Your task to perform on an android device: Clear the shopping cart on costco.com. Image 0: 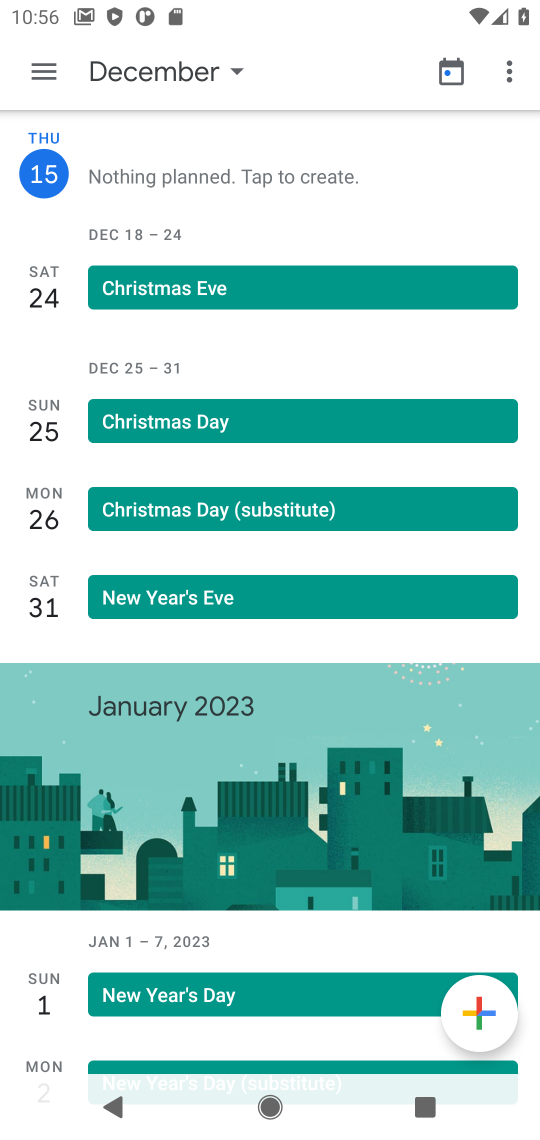
Step 0: press home button
Your task to perform on an android device: Clear the shopping cart on costco.com. Image 1: 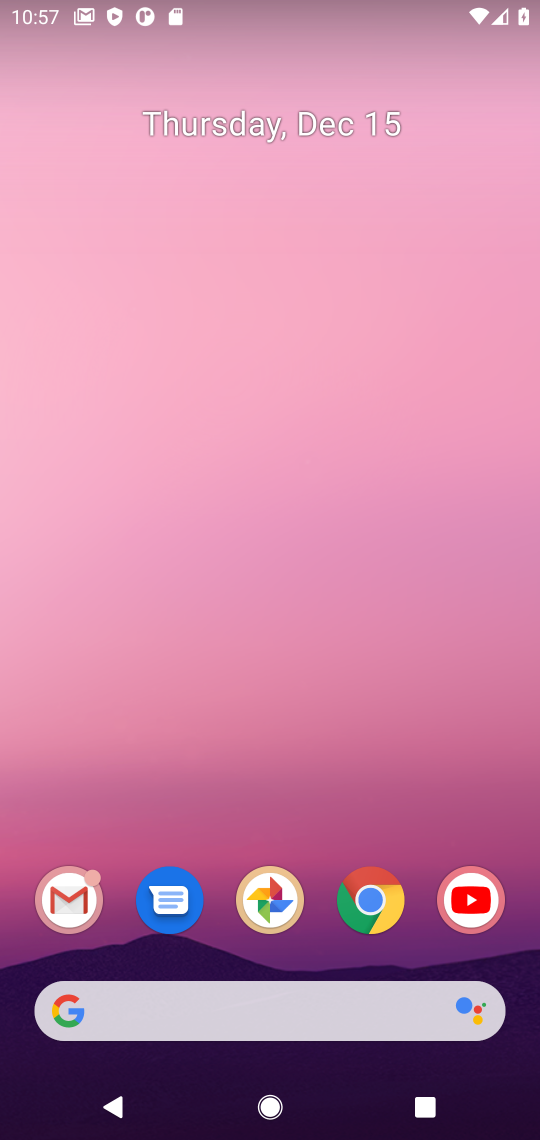
Step 1: click (384, 915)
Your task to perform on an android device: Clear the shopping cart on costco.com. Image 2: 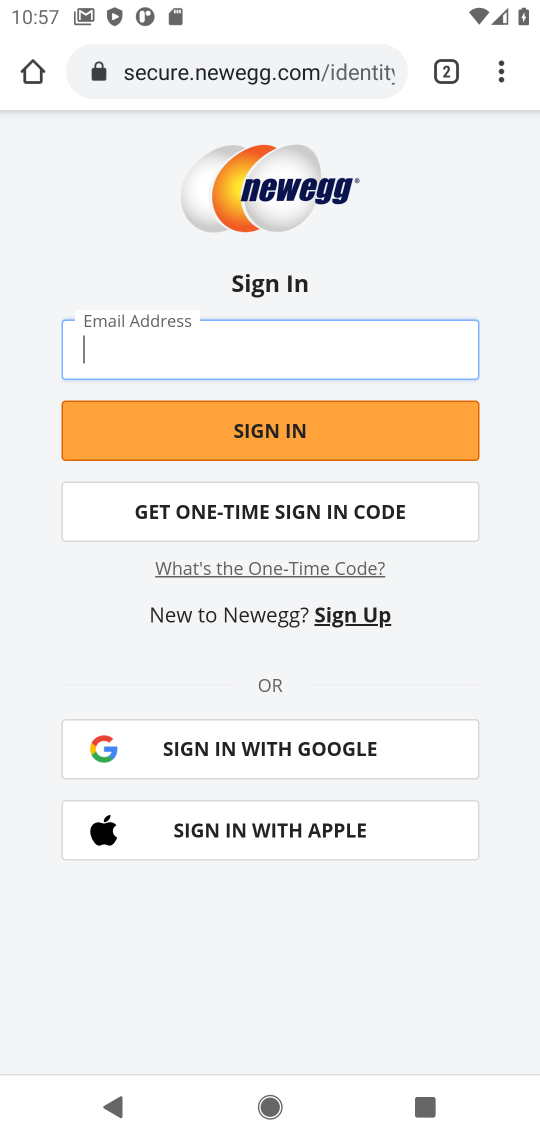
Step 2: click (231, 63)
Your task to perform on an android device: Clear the shopping cart on costco.com. Image 3: 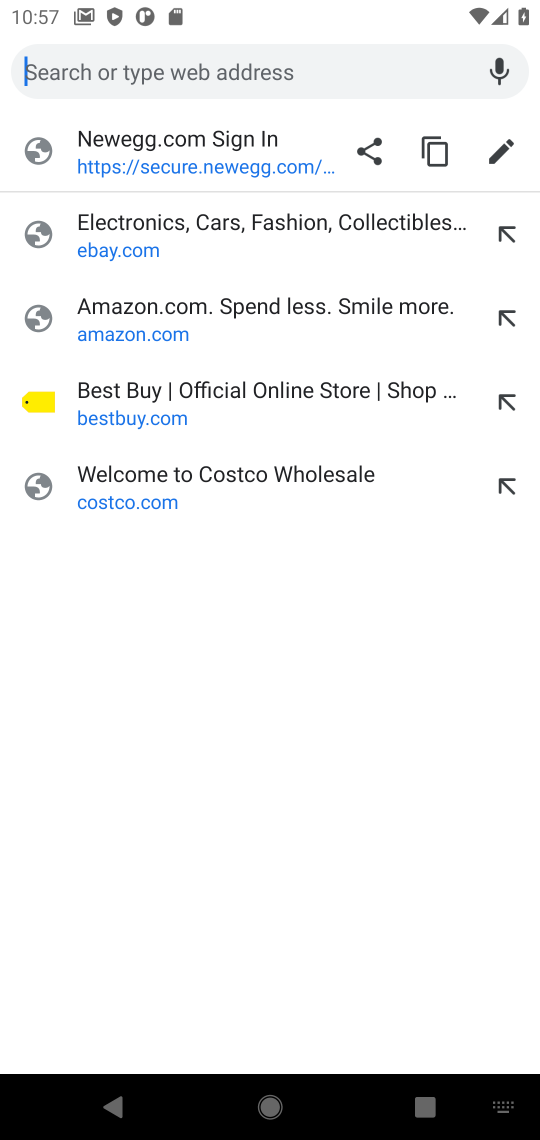
Step 3: type "costco.com"
Your task to perform on an android device: Clear the shopping cart on costco.com. Image 4: 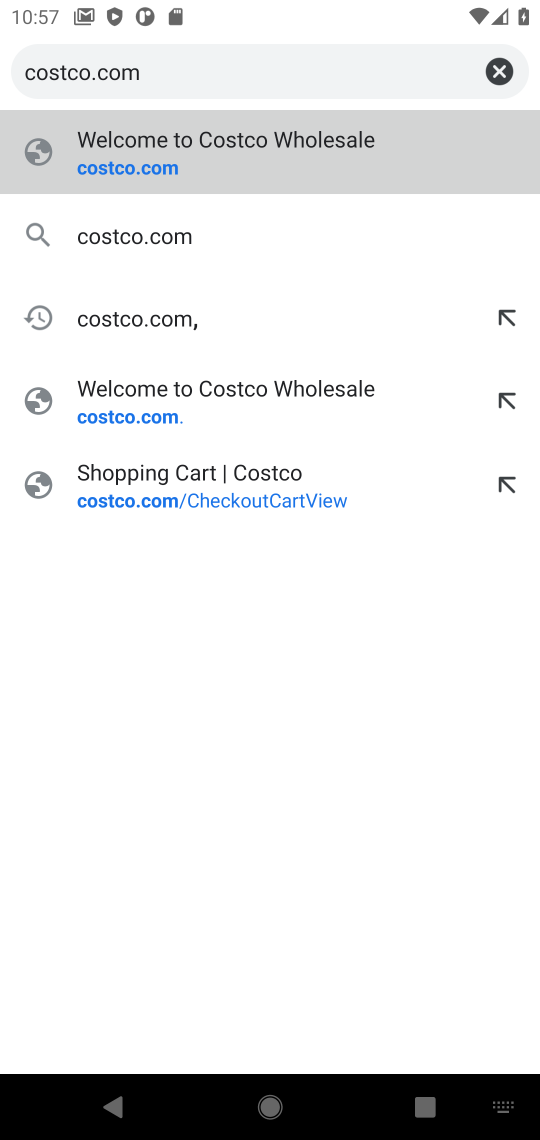
Step 4: click (268, 165)
Your task to perform on an android device: Clear the shopping cart on costco.com. Image 5: 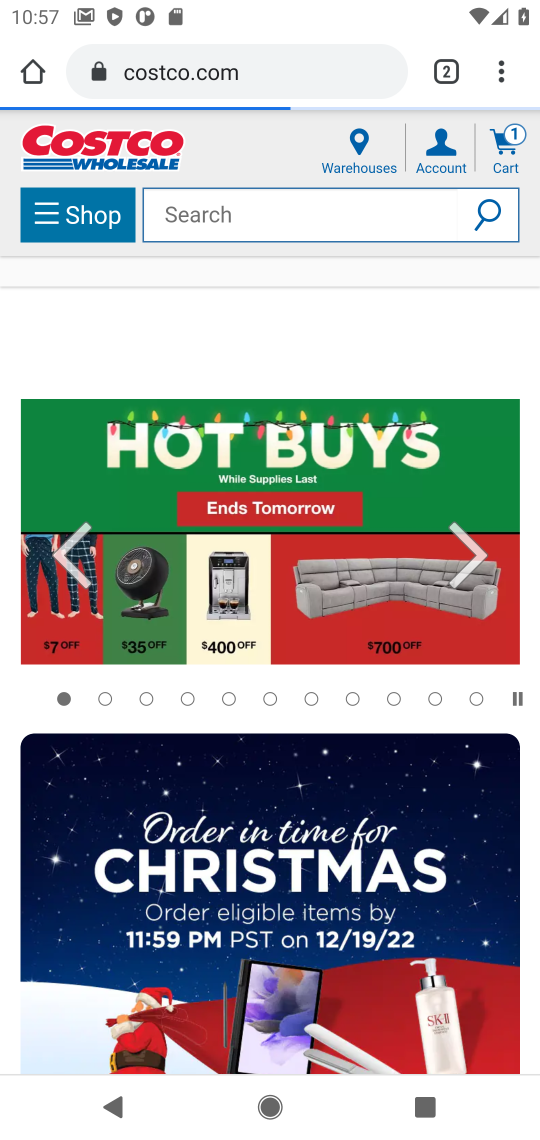
Step 5: click (499, 166)
Your task to perform on an android device: Clear the shopping cart on costco.com. Image 6: 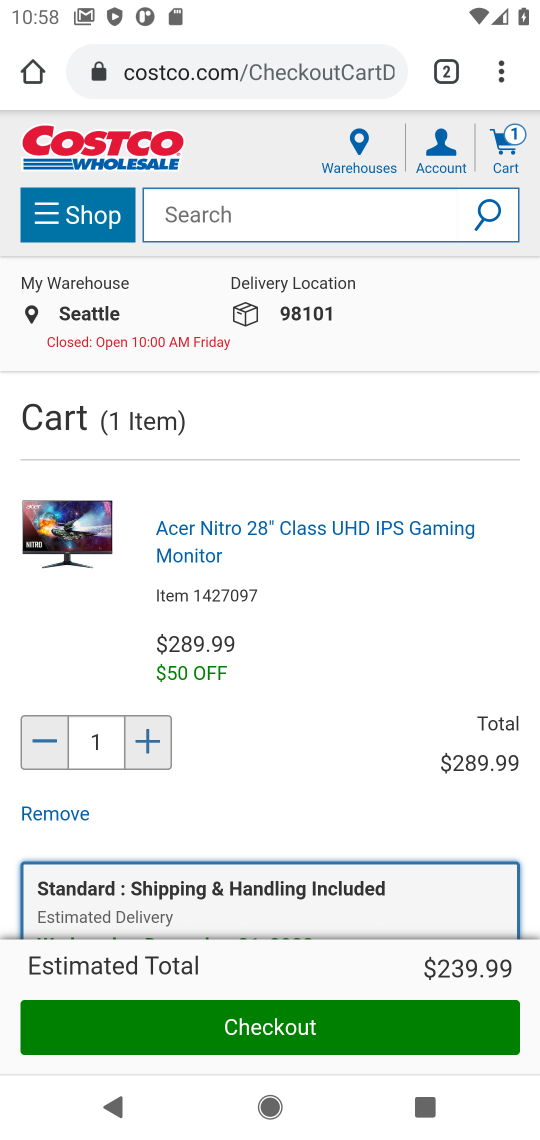
Step 6: click (43, 743)
Your task to perform on an android device: Clear the shopping cart on costco.com. Image 7: 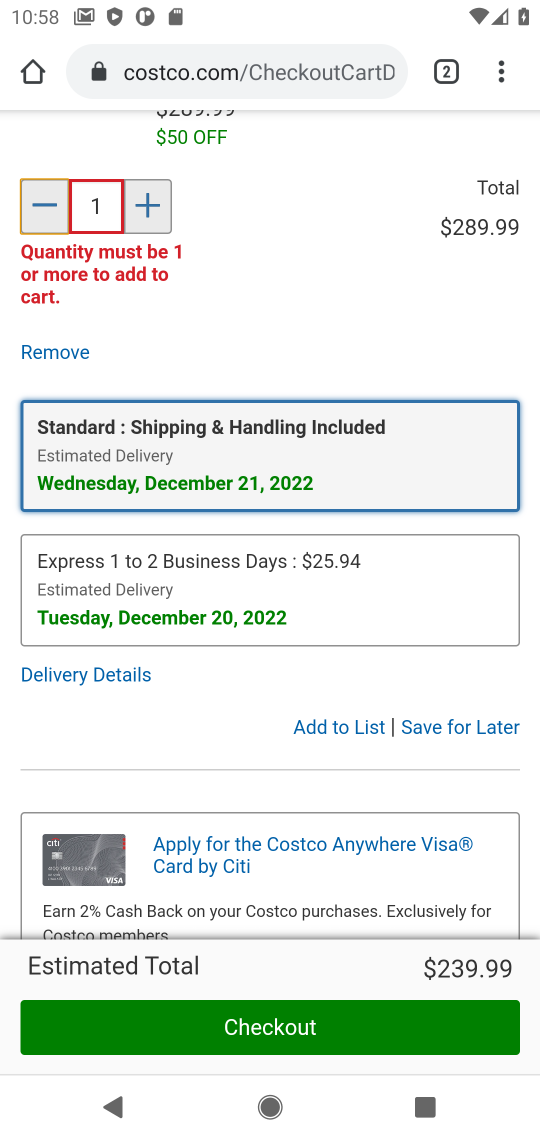
Step 7: click (60, 352)
Your task to perform on an android device: Clear the shopping cart on costco.com. Image 8: 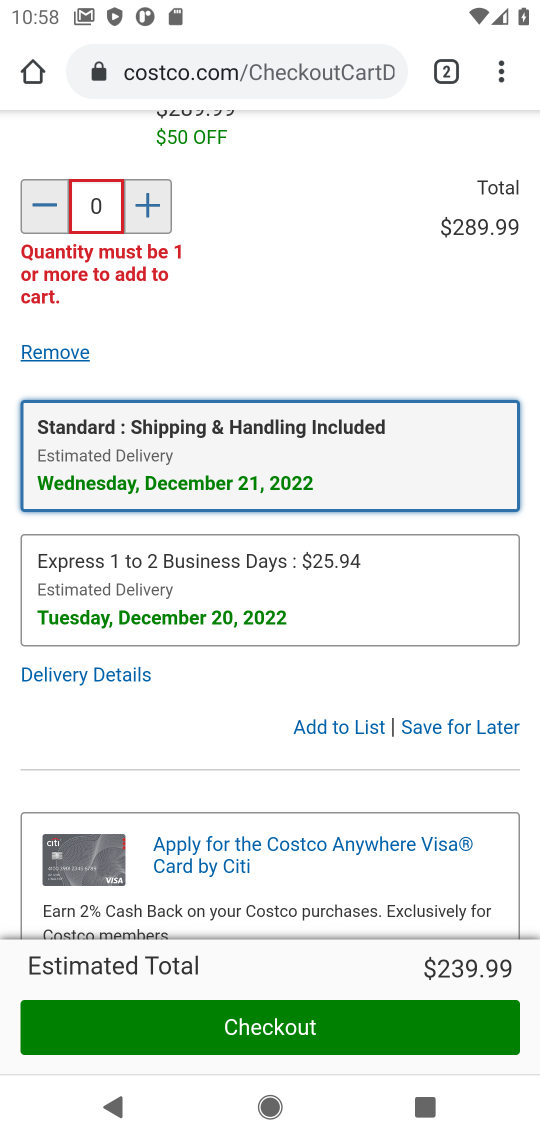
Step 8: drag from (222, 305) to (232, 562)
Your task to perform on an android device: Clear the shopping cart on costco.com. Image 9: 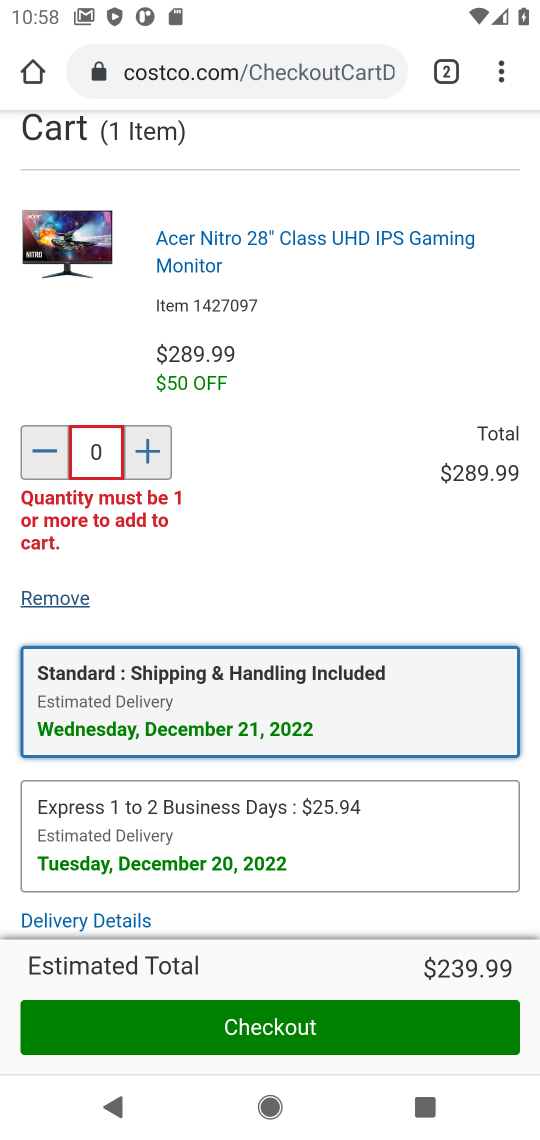
Step 9: click (57, 599)
Your task to perform on an android device: Clear the shopping cart on costco.com. Image 10: 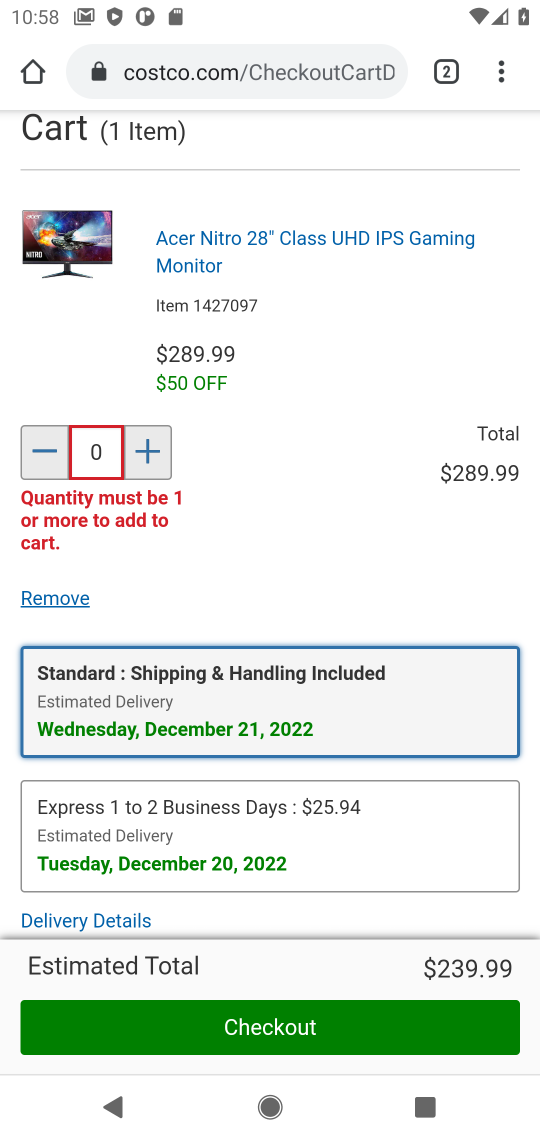
Step 10: click (57, 599)
Your task to perform on an android device: Clear the shopping cart on costco.com. Image 11: 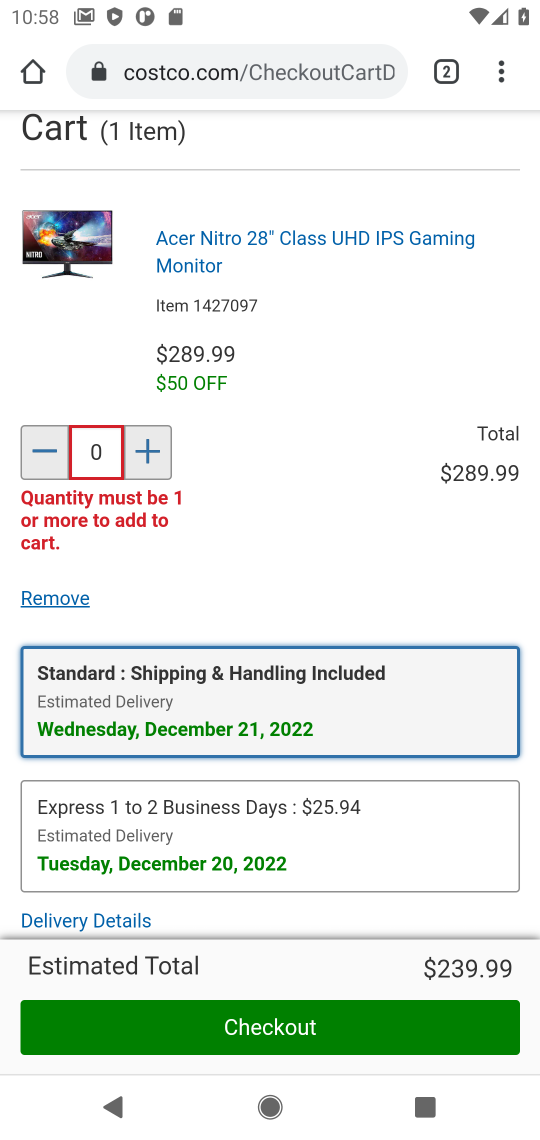
Step 11: drag from (294, 380) to (354, 762)
Your task to perform on an android device: Clear the shopping cart on costco.com. Image 12: 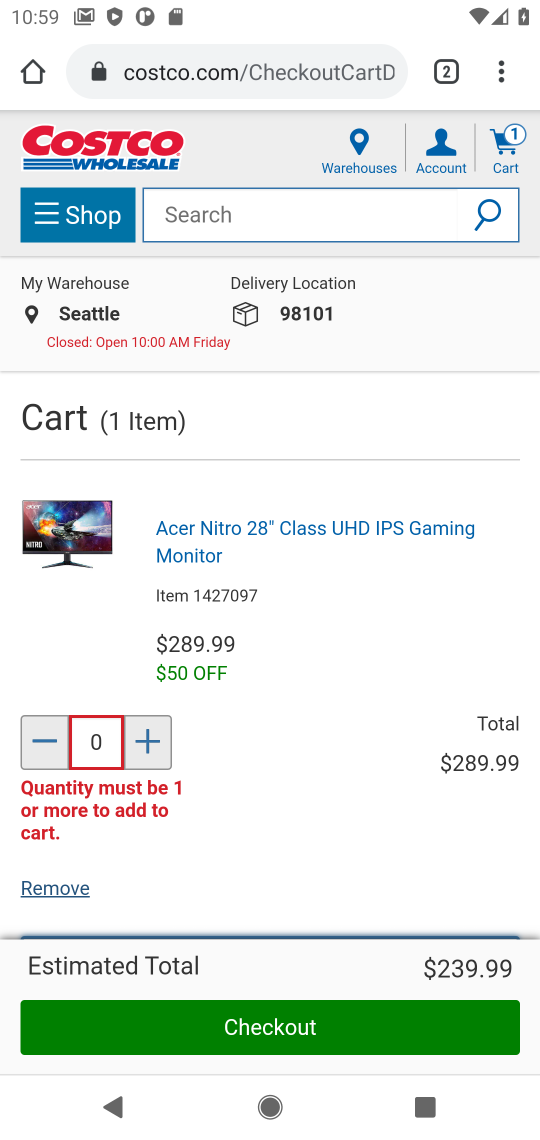
Step 12: click (44, 894)
Your task to perform on an android device: Clear the shopping cart on costco.com. Image 13: 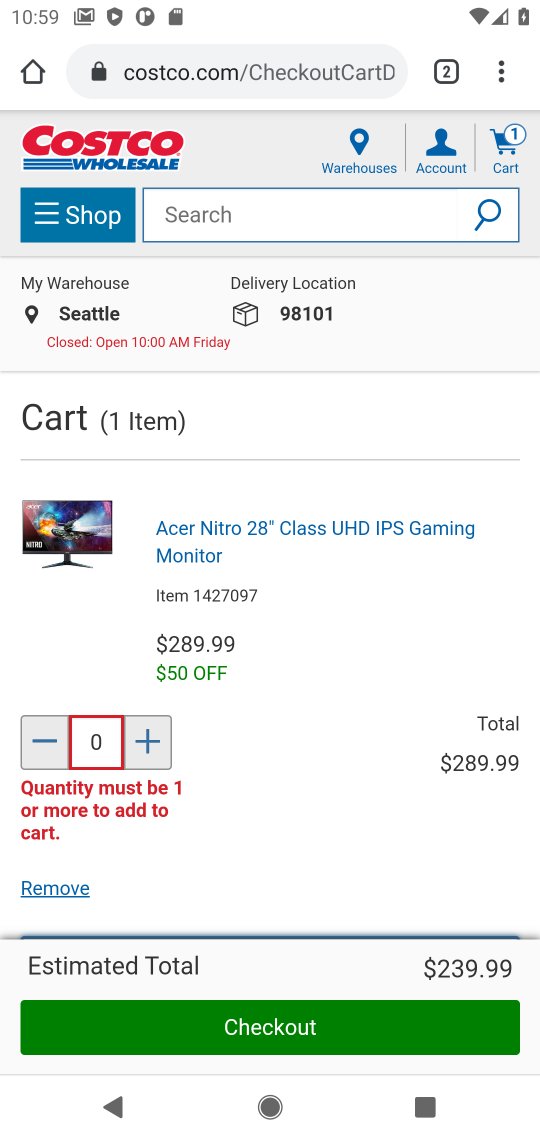
Step 13: task complete